Your task to perform on an android device: Open Chrome and go to the settings page Image 0: 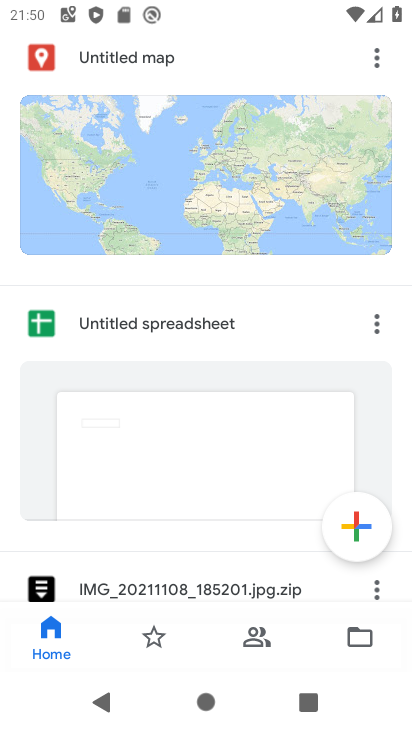
Step 0: press home button
Your task to perform on an android device: Open Chrome and go to the settings page Image 1: 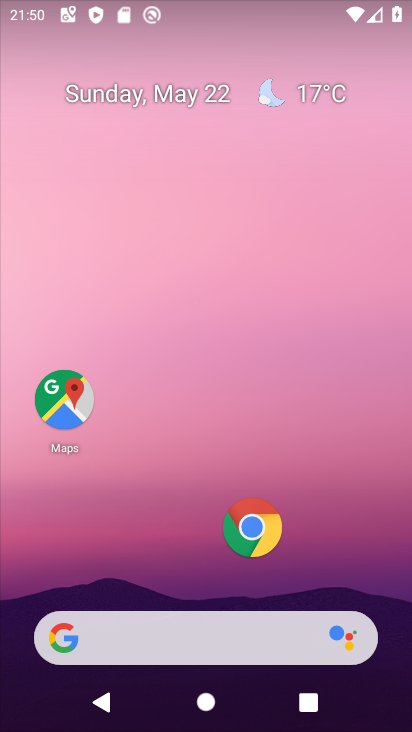
Step 1: click (244, 528)
Your task to perform on an android device: Open Chrome and go to the settings page Image 2: 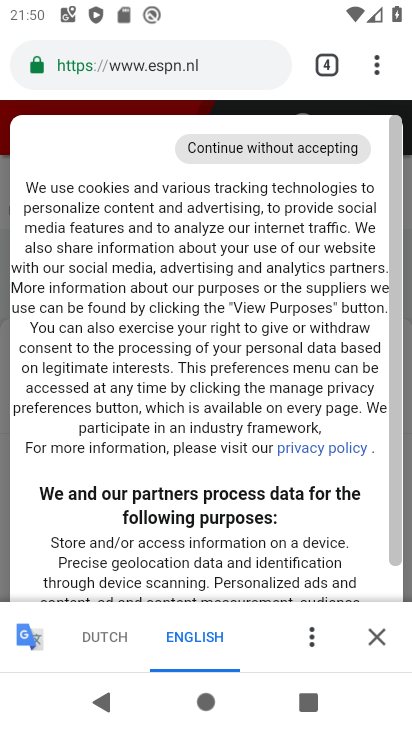
Step 2: click (368, 64)
Your task to perform on an android device: Open Chrome and go to the settings page Image 3: 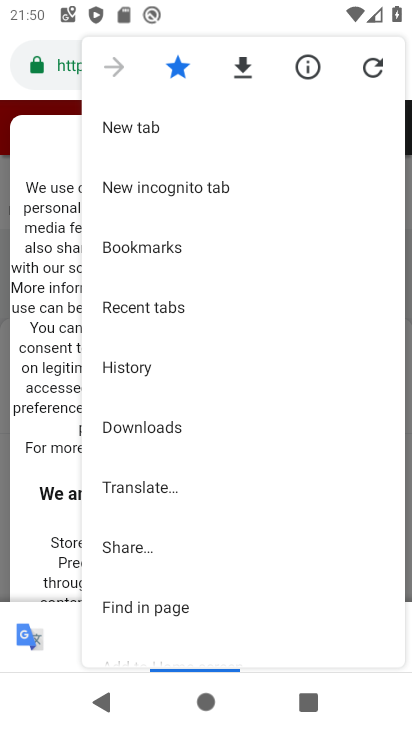
Step 3: drag from (287, 501) to (243, 244)
Your task to perform on an android device: Open Chrome and go to the settings page Image 4: 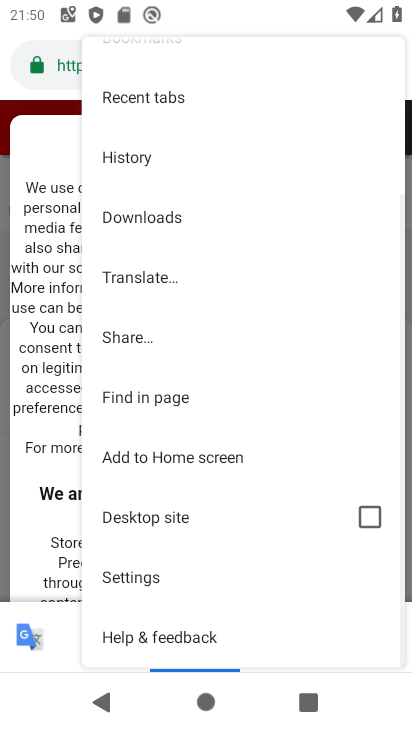
Step 4: click (143, 574)
Your task to perform on an android device: Open Chrome and go to the settings page Image 5: 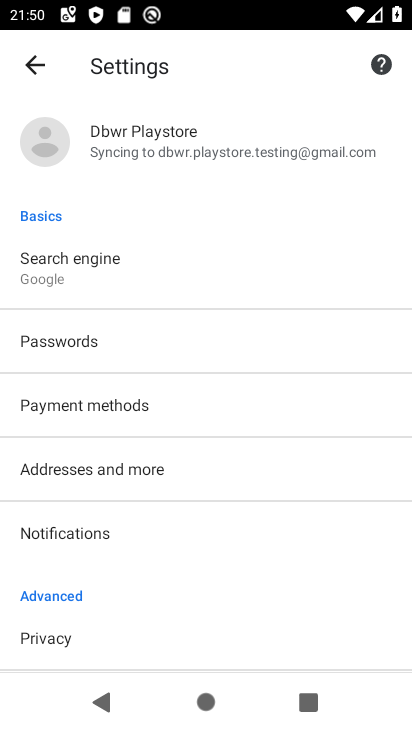
Step 5: task complete